Your task to perform on an android device: change the clock display to digital Image 0: 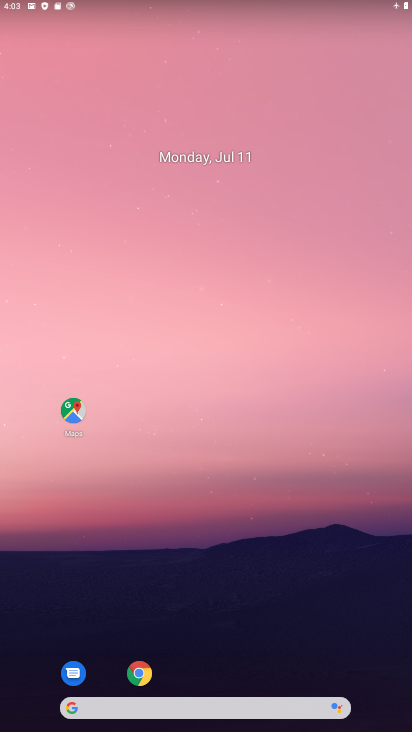
Step 0: drag from (192, 607) to (269, 80)
Your task to perform on an android device: change the clock display to digital Image 1: 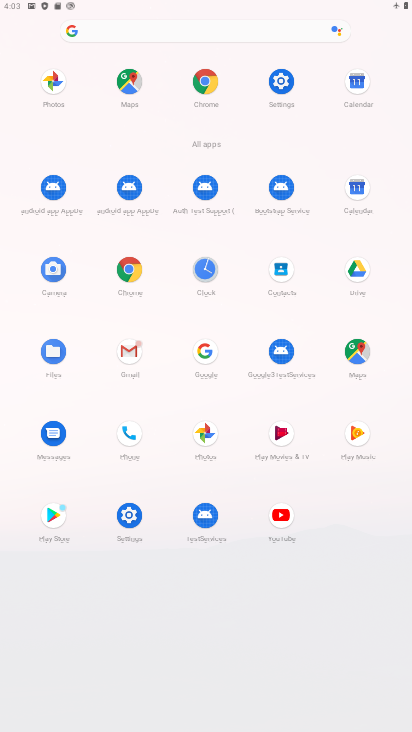
Step 1: click (217, 284)
Your task to perform on an android device: change the clock display to digital Image 2: 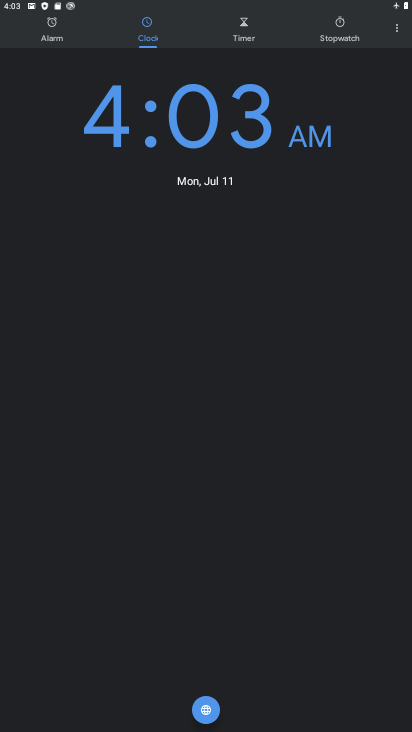
Step 2: click (393, 25)
Your task to perform on an android device: change the clock display to digital Image 3: 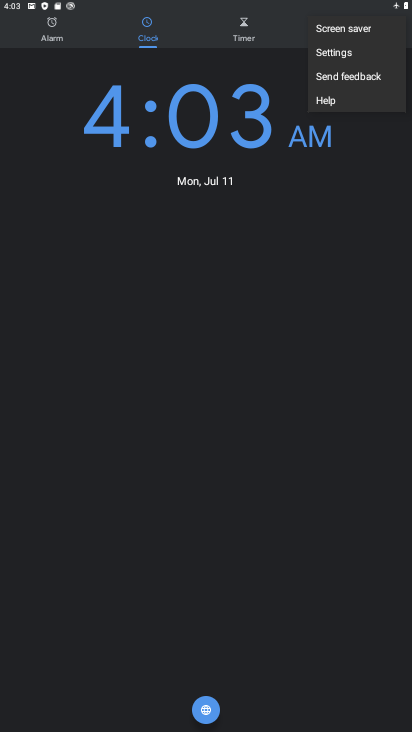
Step 3: click (354, 53)
Your task to perform on an android device: change the clock display to digital Image 4: 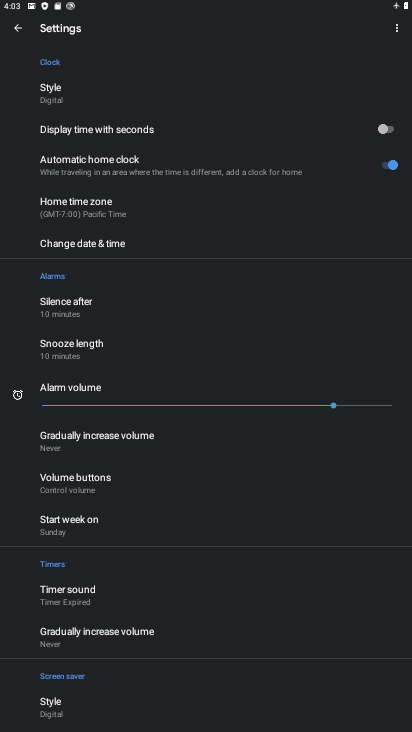
Step 4: task complete